Your task to perform on an android device: Open eBay Image 0: 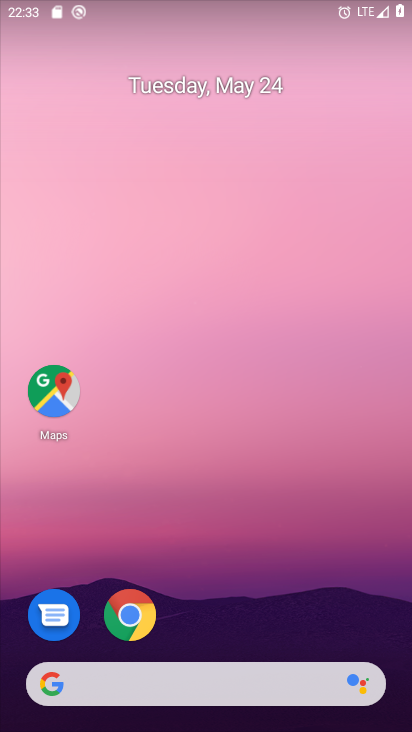
Step 0: drag from (214, 575) to (270, 306)
Your task to perform on an android device: Open eBay Image 1: 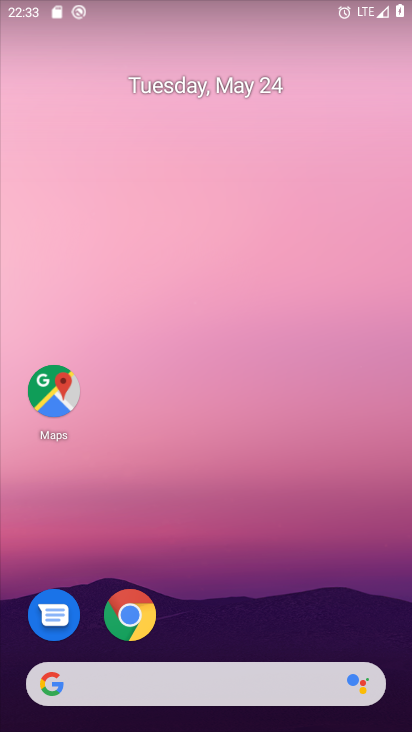
Step 1: drag from (254, 579) to (277, 221)
Your task to perform on an android device: Open eBay Image 2: 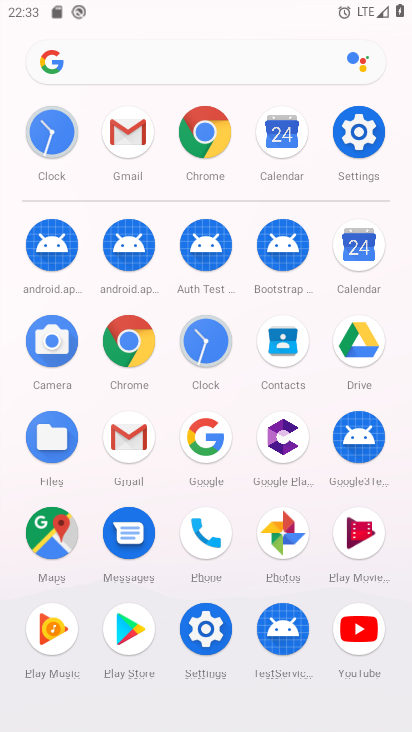
Step 2: click (134, 324)
Your task to perform on an android device: Open eBay Image 3: 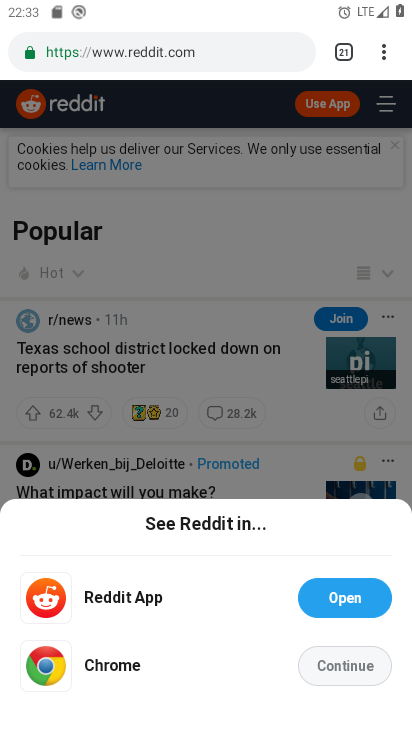
Step 3: click (379, 51)
Your task to perform on an android device: Open eBay Image 4: 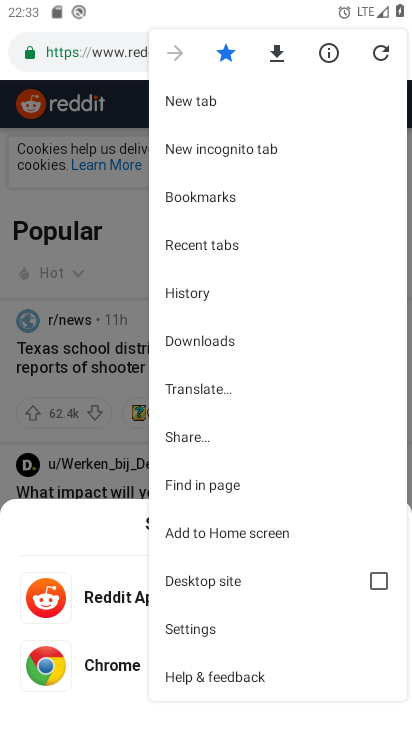
Step 4: click (187, 98)
Your task to perform on an android device: Open eBay Image 5: 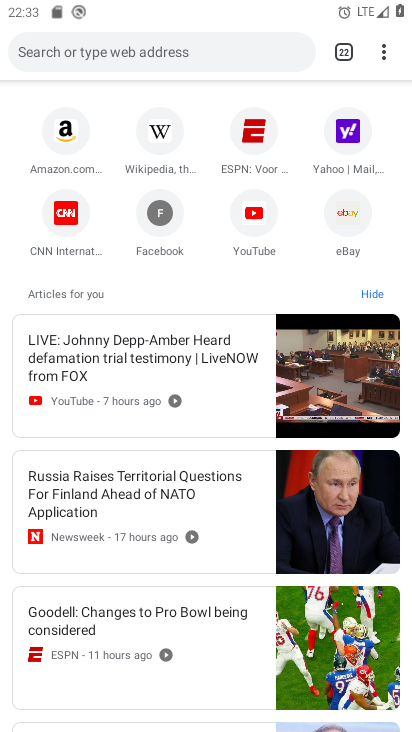
Step 5: click (215, 37)
Your task to perform on an android device: Open eBay Image 6: 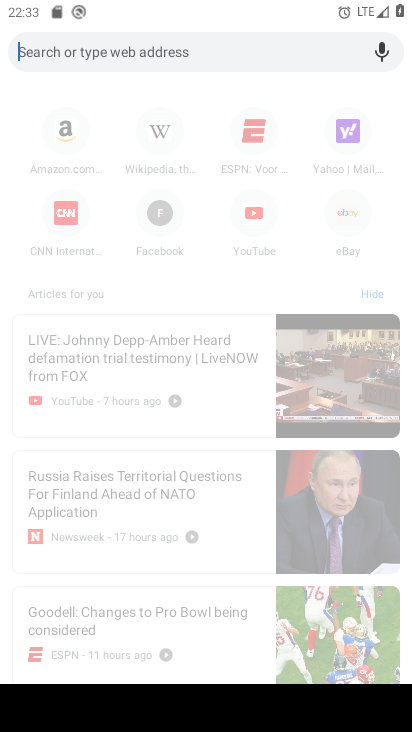
Step 6: type "eBay"
Your task to perform on an android device: Open eBay Image 7: 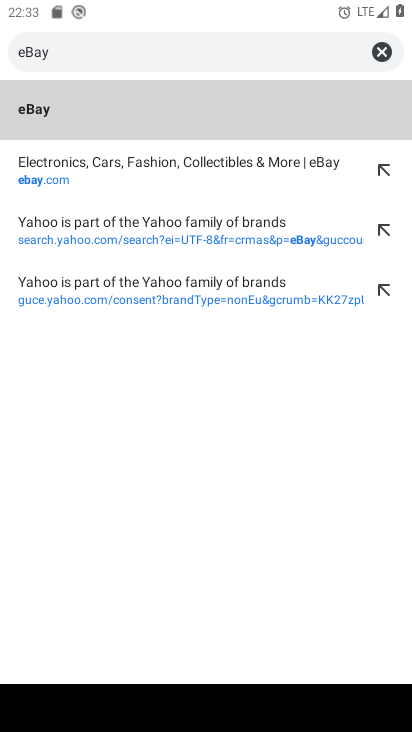
Step 7: click (209, 118)
Your task to perform on an android device: Open eBay Image 8: 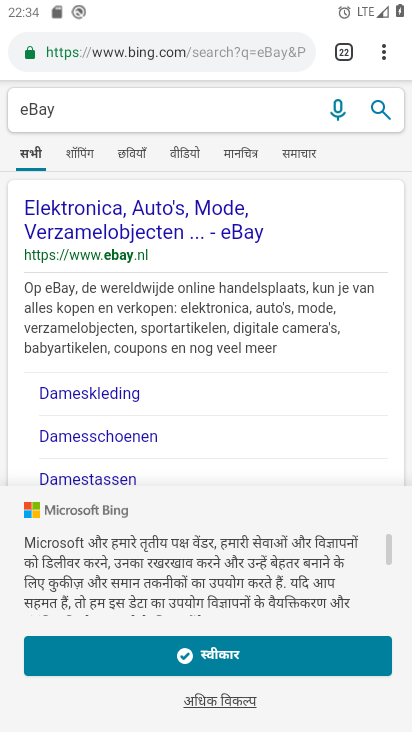
Step 8: task complete